Your task to perform on an android device: Find coffee shops on Maps Image 0: 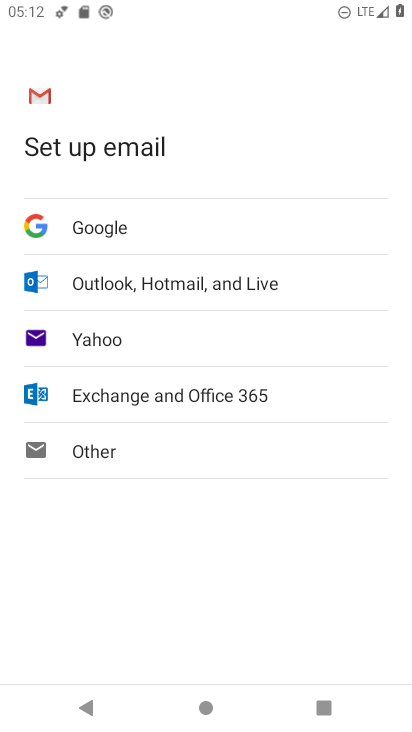
Step 0: press home button
Your task to perform on an android device: Find coffee shops on Maps Image 1: 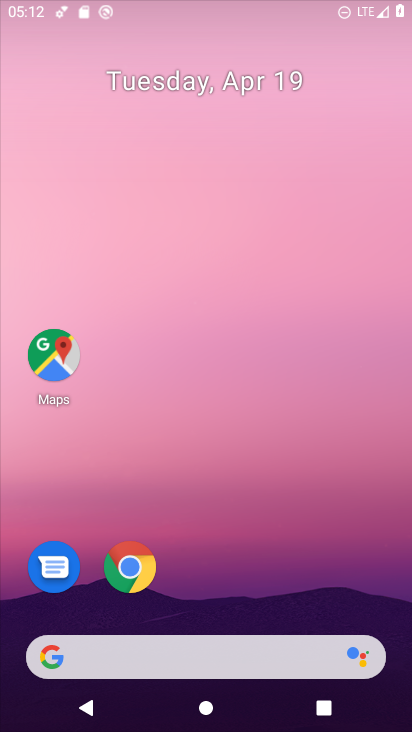
Step 1: drag from (233, 528) to (256, 36)
Your task to perform on an android device: Find coffee shops on Maps Image 2: 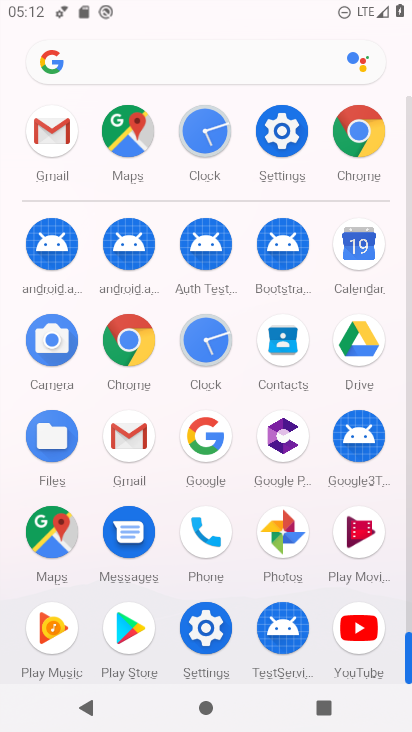
Step 2: click (64, 534)
Your task to perform on an android device: Find coffee shops on Maps Image 3: 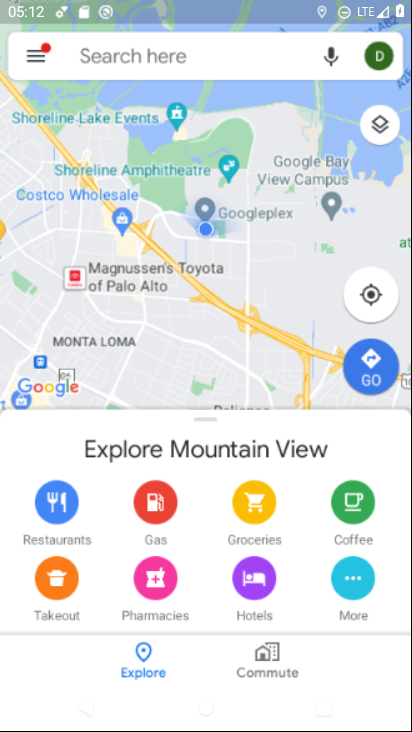
Step 3: click (141, 77)
Your task to perform on an android device: Find coffee shops on Maps Image 4: 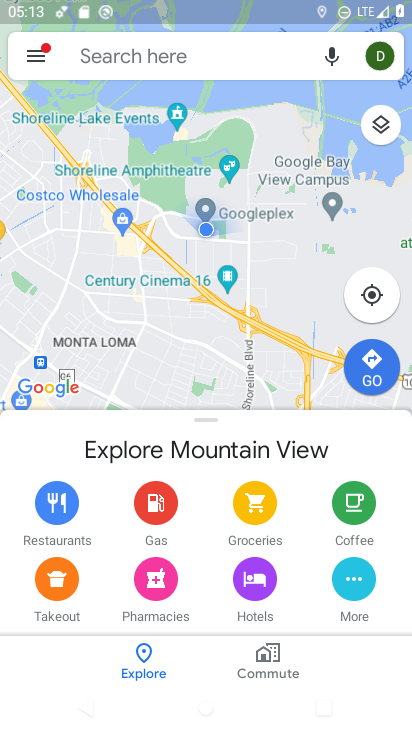
Step 4: click (155, 52)
Your task to perform on an android device: Find coffee shops on Maps Image 5: 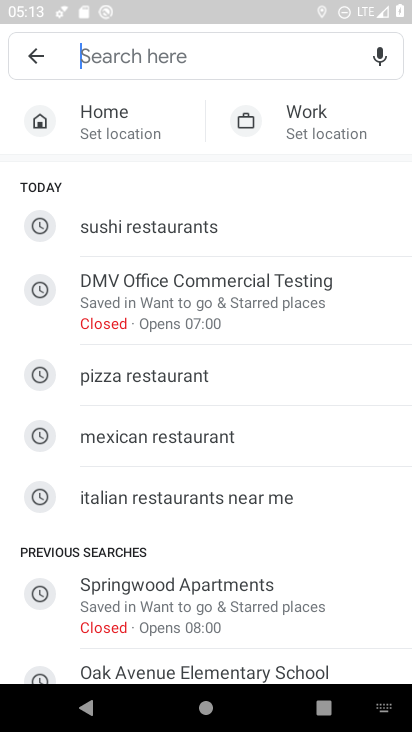
Step 5: type "coffee shop"
Your task to perform on an android device: Find coffee shops on Maps Image 6: 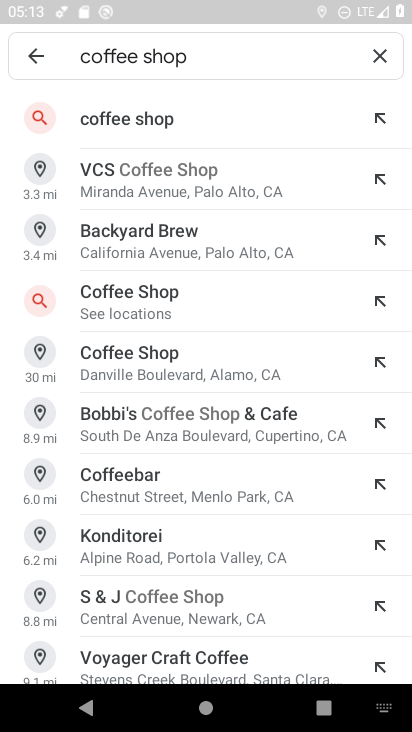
Step 6: click (155, 130)
Your task to perform on an android device: Find coffee shops on Maps Image 7: 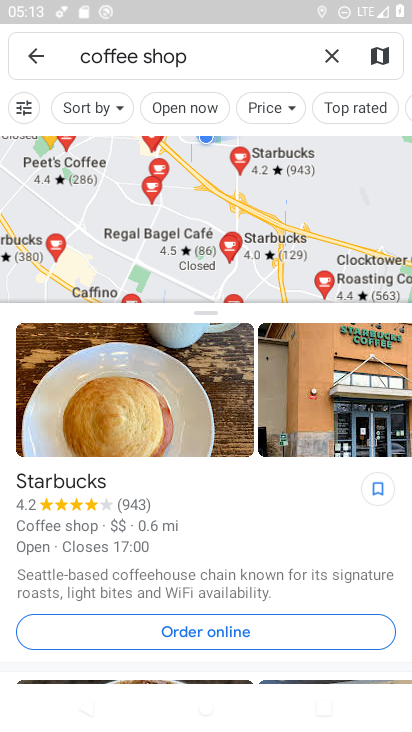
Step 7: task complete